Your task to perform on an android device: Open calendar and show me the first week of next month Image 0: 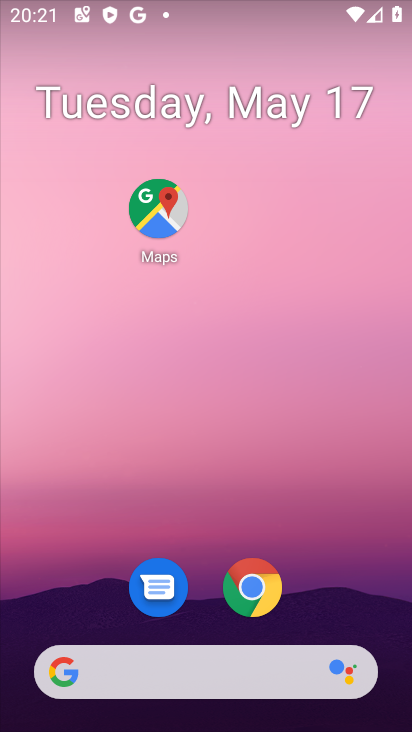
Step 0: drag from (7, 620) to (261, 177)
Your task to perform on an android device: Open calendar and show me the first week of next month Image 1: 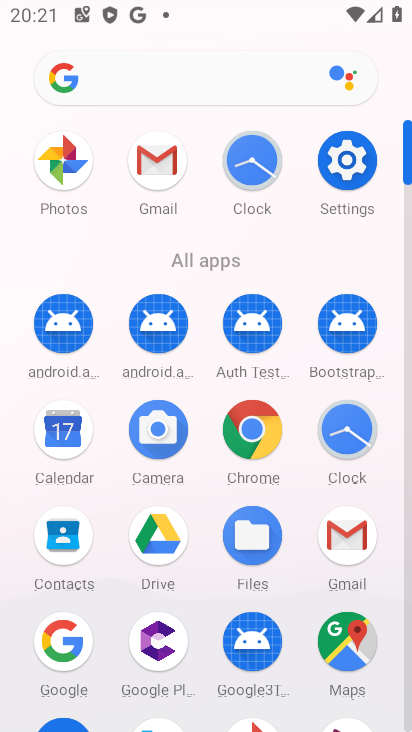
Step 1: click (64, 427)
Your task to perform on an android device: Open calendar and show me the first week of next month Image 2: 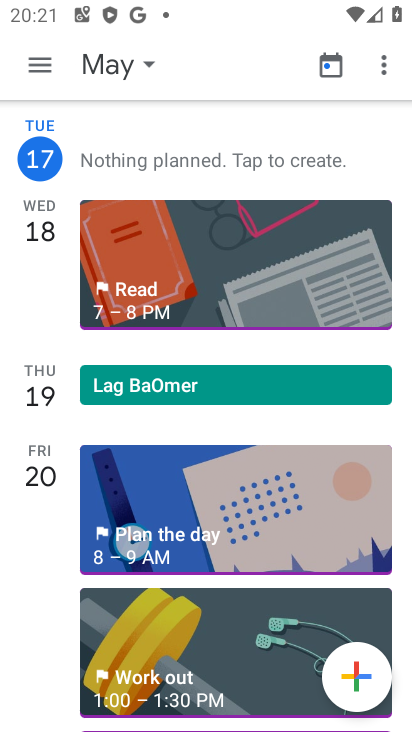
Step 2: click (114, 67)
Your task to perform on an android device: Open calendar and show me the first week of next month Image 3: 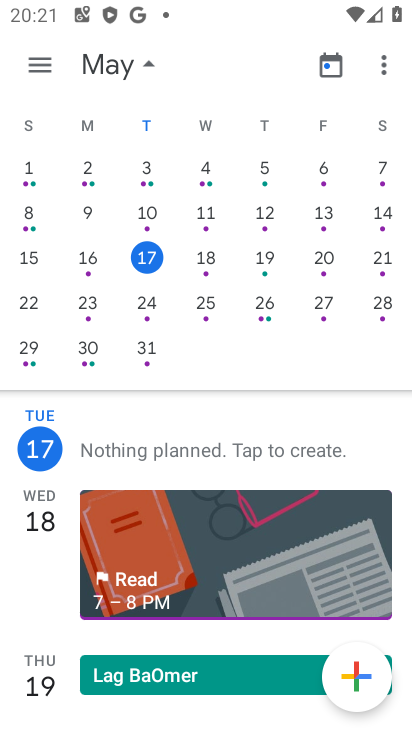
Step 3: drag from (404, 231) to (0, 228)
Your task to perform on an android device: Open calendar and show me the first week of next month Image 4: 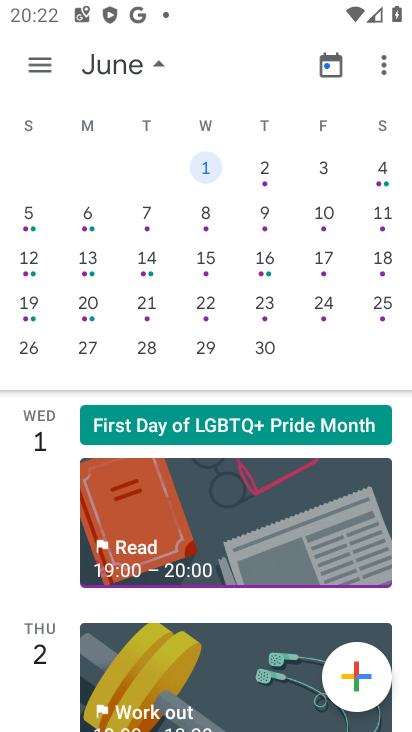
Step 4: click (270, 170)
Your task to perform on an android device: Open calendar and show me the first week of next month Image 5: 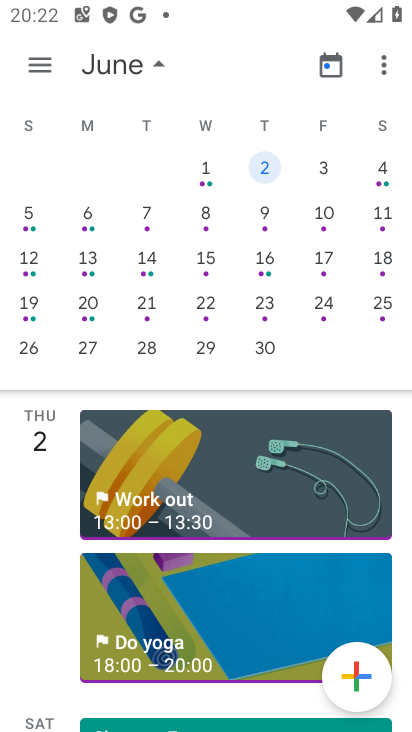
Step 5: click (332, 166)
Your task to perform on an android device: Open calendar and show me the first week of next month Image 6: 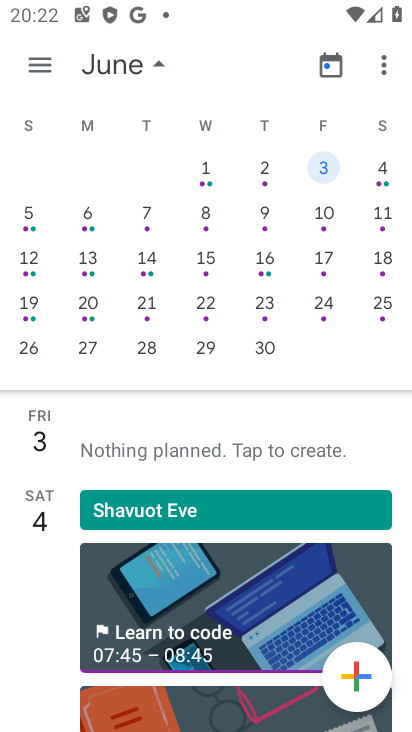
Step 6: task complete